Your task to perform on an android device: change text size in settings app Image 0: 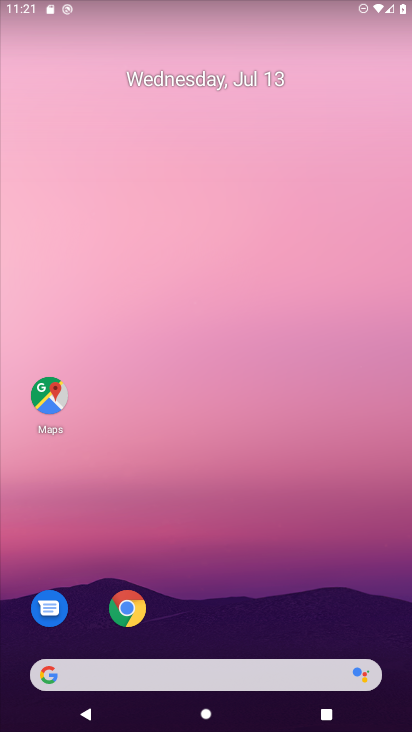
Step 0: drag from (237, 596) to (262, 249)
Your task to perform on an android device: change text size in settings app Image 1: 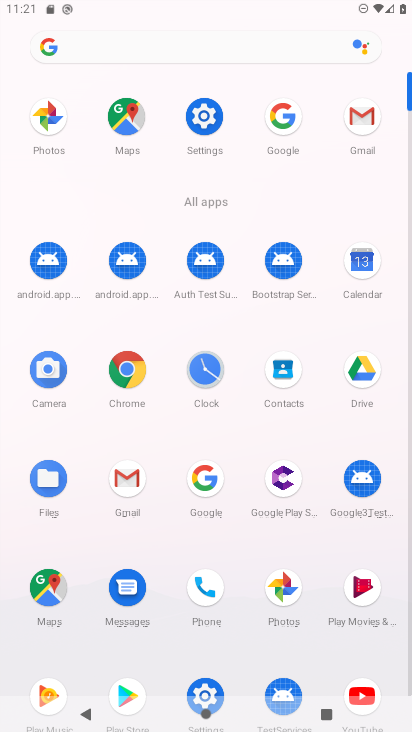
Step 1: click (207, 130)
Your task to perform on an android device: change text size in settings app Image 2: 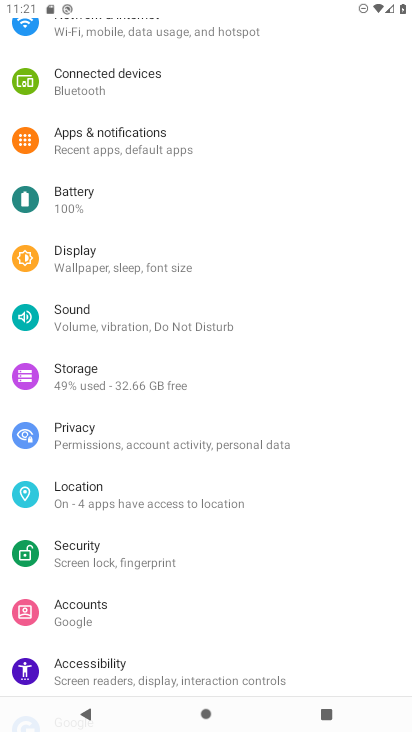
Step 2: click (134, 261)
Your task to perform on an android device: change text size in settings app Image 3: 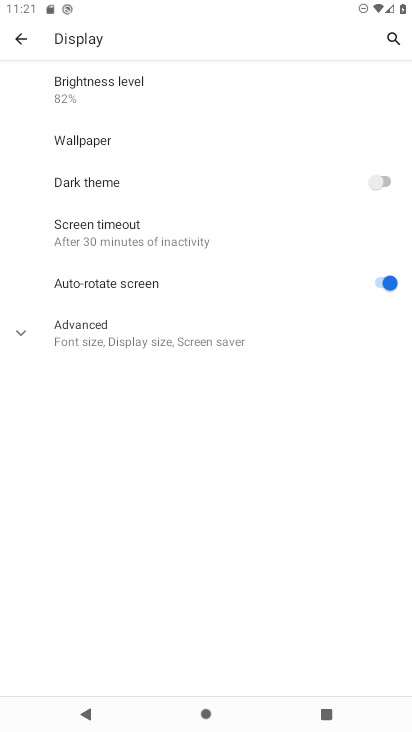
Step 3: click (106, 338)
Your task to perform on an android device: change text size in settings app Image 4: 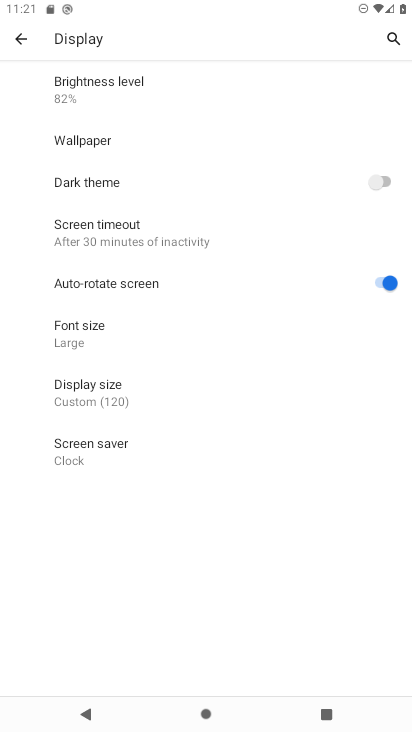
Step 4: click (120, 337)
Your task to perform on an android device: change text size in settings app Image 5: 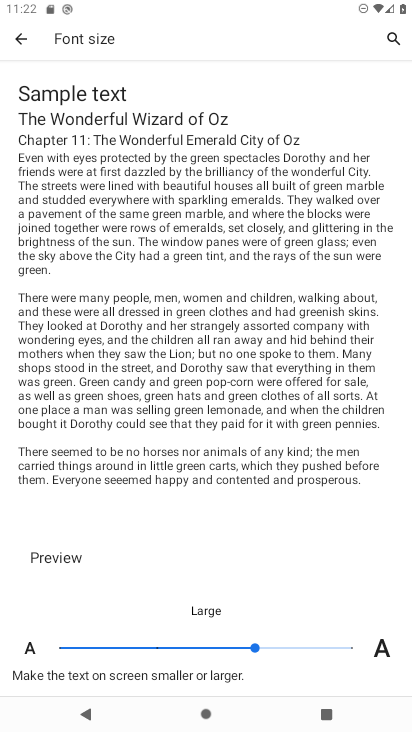
Step 5: click (353, 647)
Your task to perform on an android device: change text size in settings app Image 6: 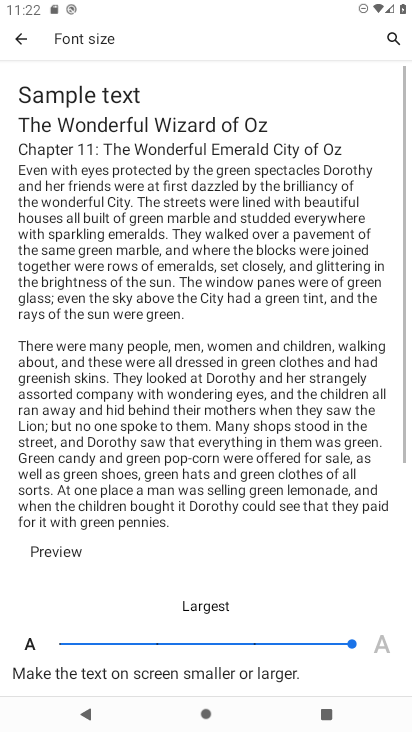
Step 6: task complete